Your task to perform on an android device: turn notification dots off Image 0: 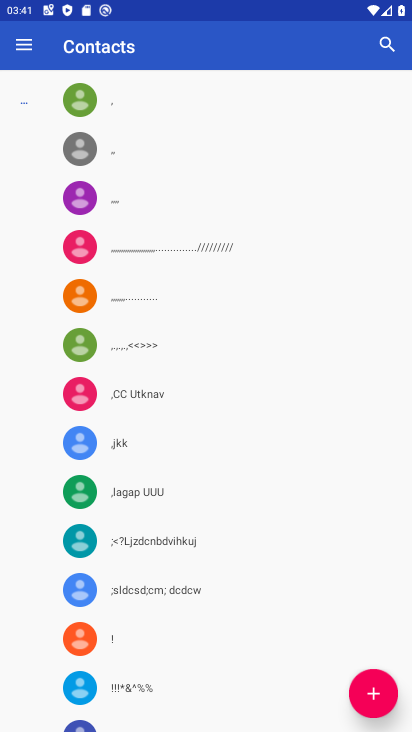
Step 0: press home button
Your task to perform on an android device: turn notification dots off Image 1: 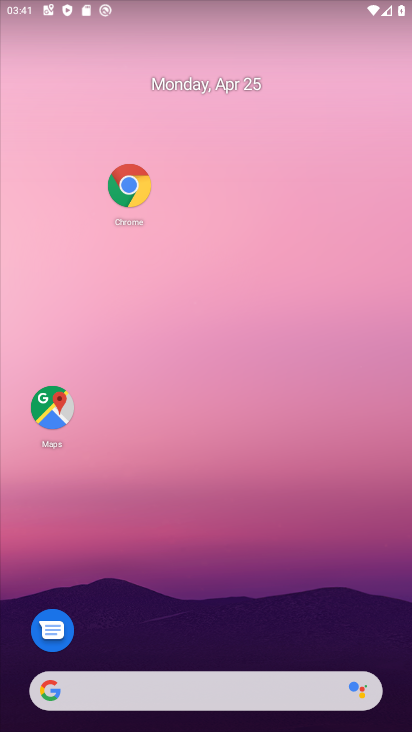
Step 1: drag from (144, 657) to (157, 187)
Your task to perform on an android device: turn notification dots off Image 2: 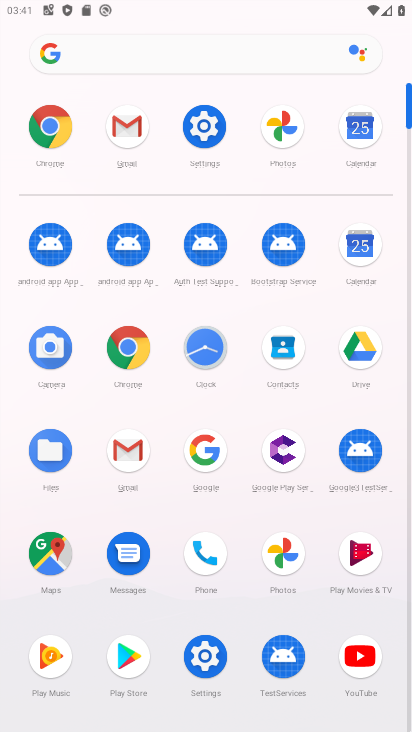
Step 2: click (204, 655)
Your task to perform on an android device: turn notification dots off Image 3: 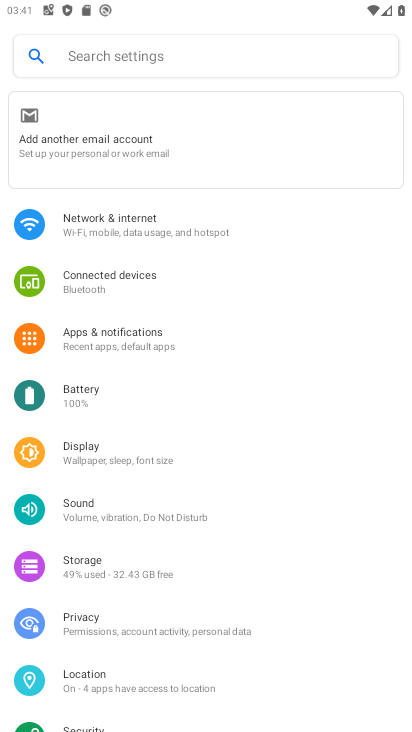
Step 3: click (76, 342)
Your task to perform on an android device: turn notification dots off Image 4: 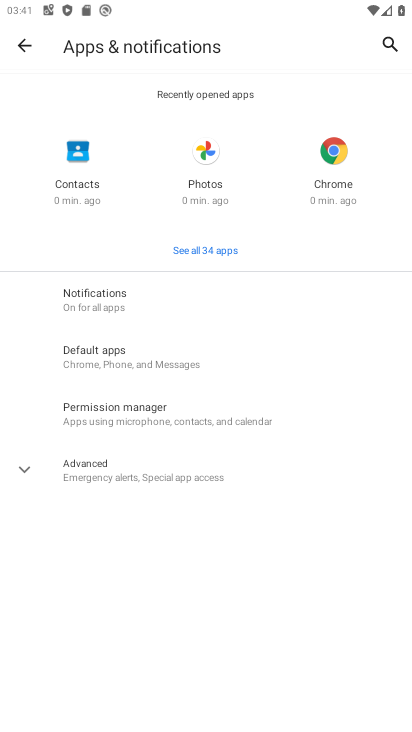
Step 4: click (115, 300)
Your task to perform on an android device: turn notification dots off Image 5: 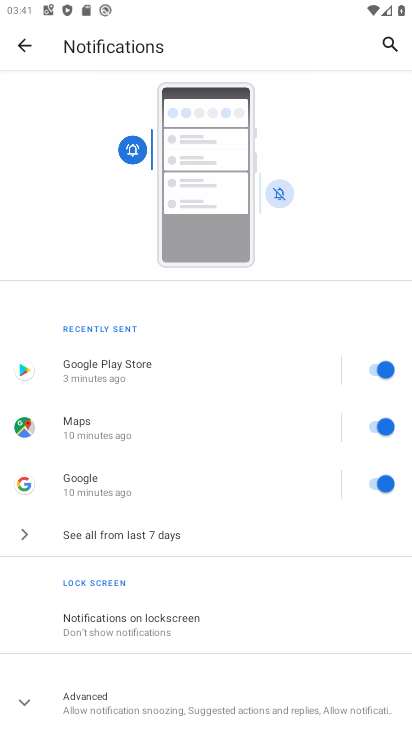
Step 5: click (28, 697)
Your task to perform on an android device: turn notification dots off Image 6: 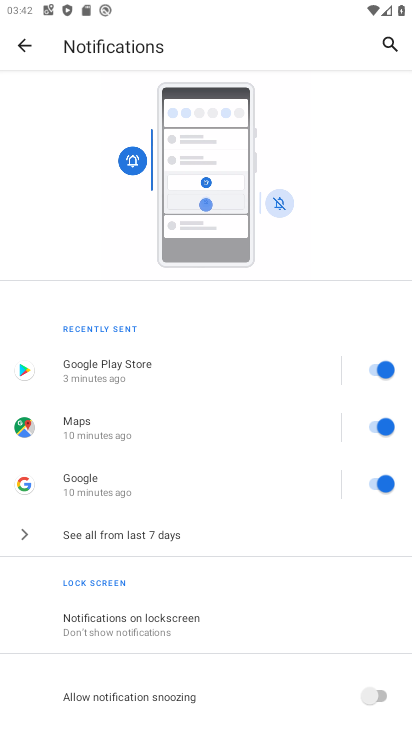
Step 6: drag from (226, 671) to (327, 230)
Your task to perform on an android device: turn notification dots off Image 7: 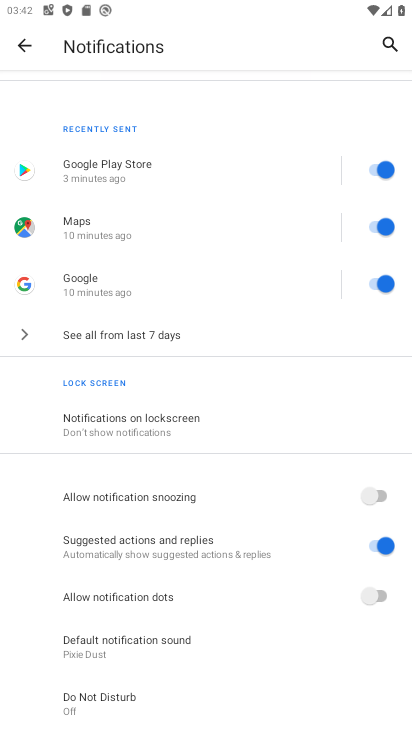
Step 7: click (382, 597)
Your task to perform on an android device: turn notification dots off Image 8: 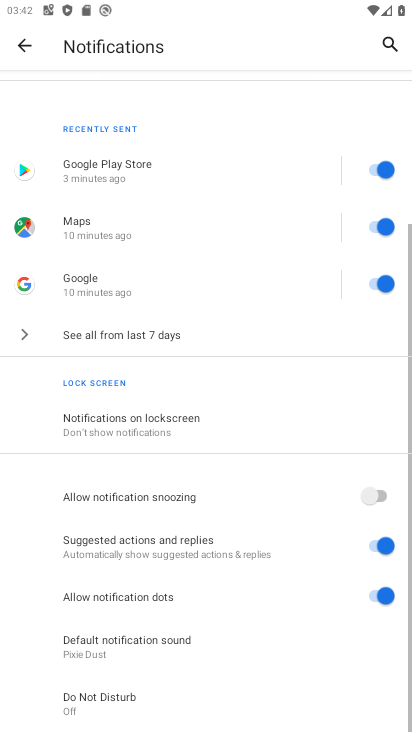
Step 8: click (382, 597)
Your task to perform on an android device: turn notification dots off Image 9: 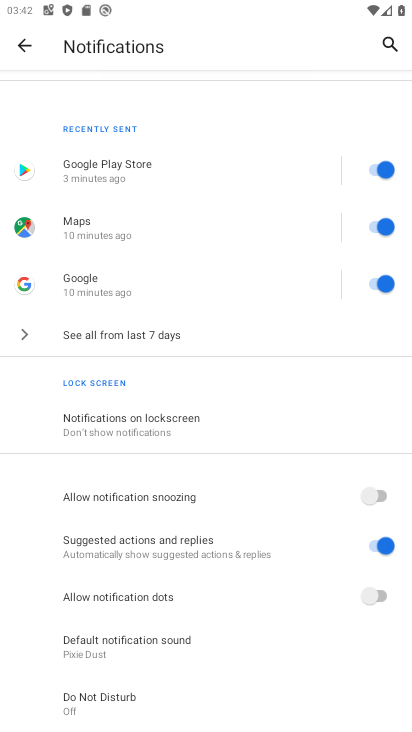
Step 9: task complete